Your task to perform on an android device: turn off wifi Image 0: 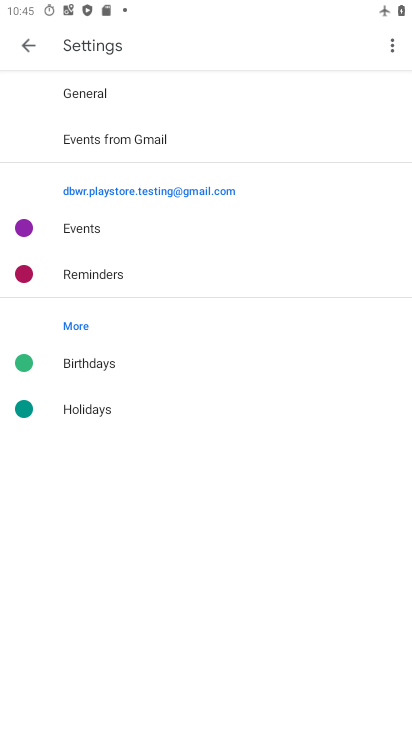
Step 0: press home button
Your task to perform on an android device: turn off wifi Image 1: 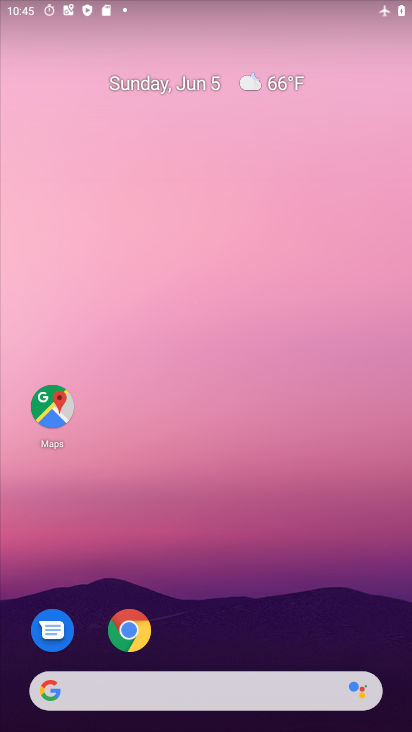
Step 1: drag from (245, 724) to (248, 35)
Your task to perform on an android device: turn off wifi Image 2: 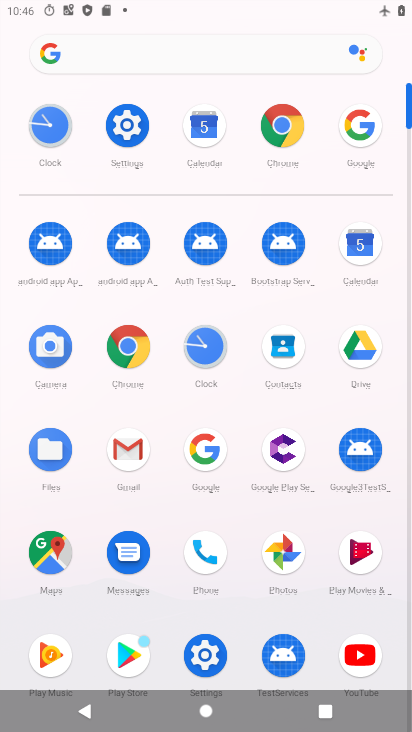
Step 2: click (127, 127)
Your task to perform on an android device: turn off wifi Image 3: 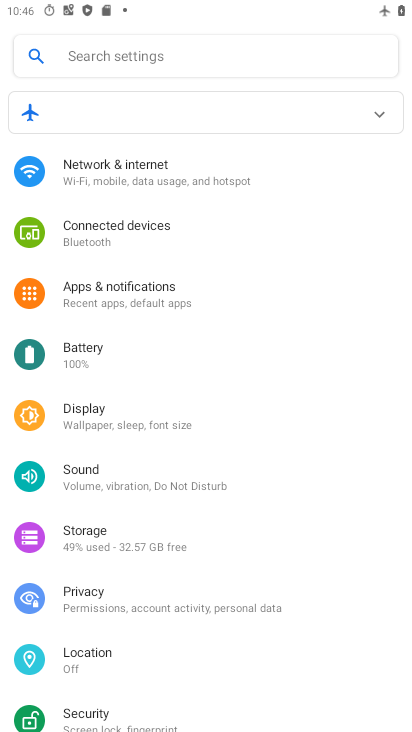
Step 3: click (142, 179)
Your task to perform on an android device: turn off wifi Image 4: 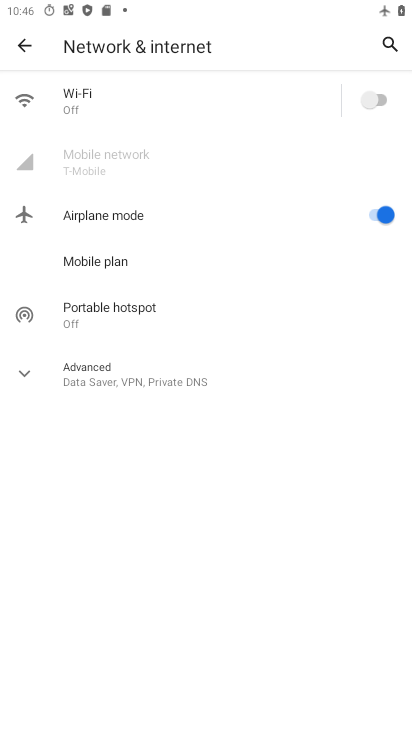
Step 4: task complete